Your task to perform on an android device: check the backup settings in the google photos Image 0: 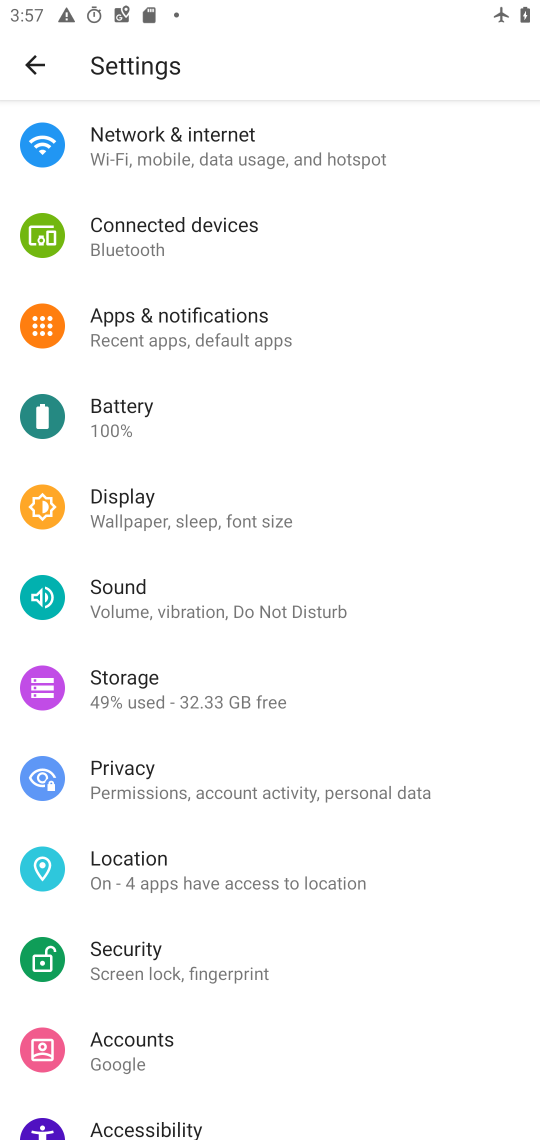
Step 0: press home button
Your task to perform on an android device: check the backup settings in the google photos Image 1: 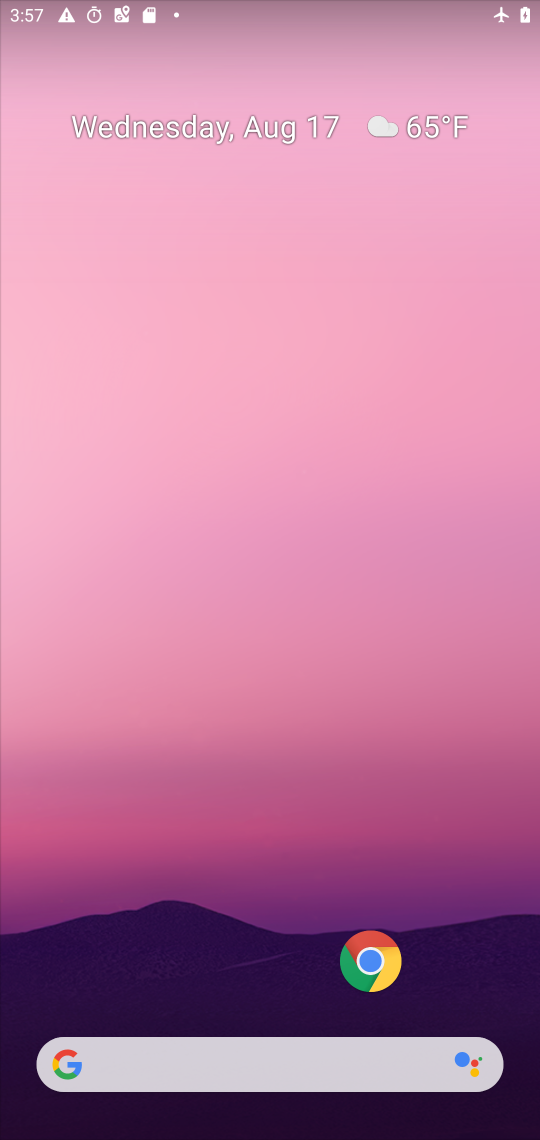
Step 1: drag from (446, 969) to (474, 385)
Your task to perform on an android device: check the backup settings in the google photos Image 2: 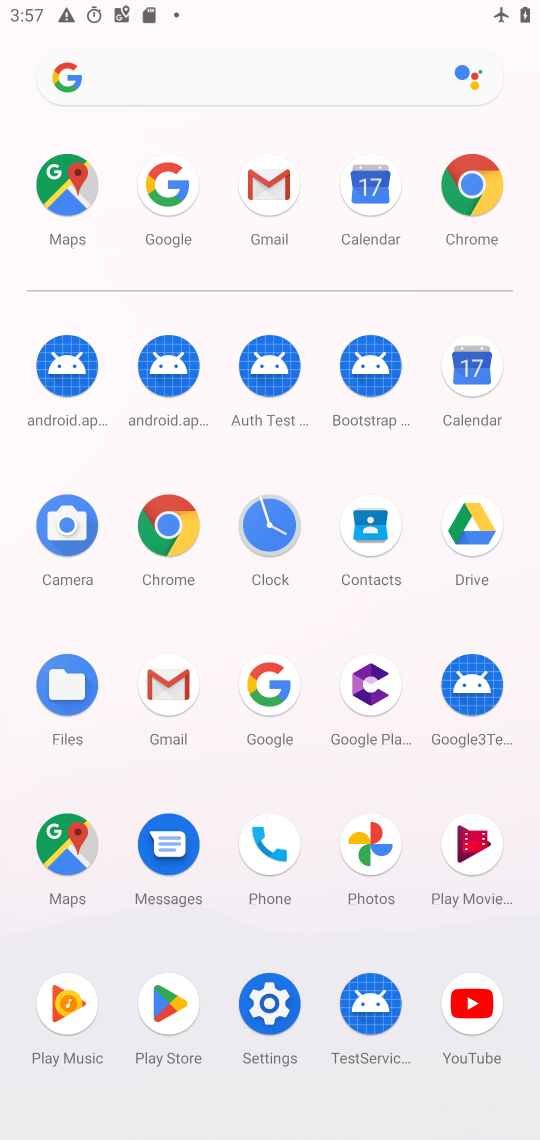
Step 2: click (393, 844)
Your task to perform on an android device: check the backup settings in the google photos Image 3: 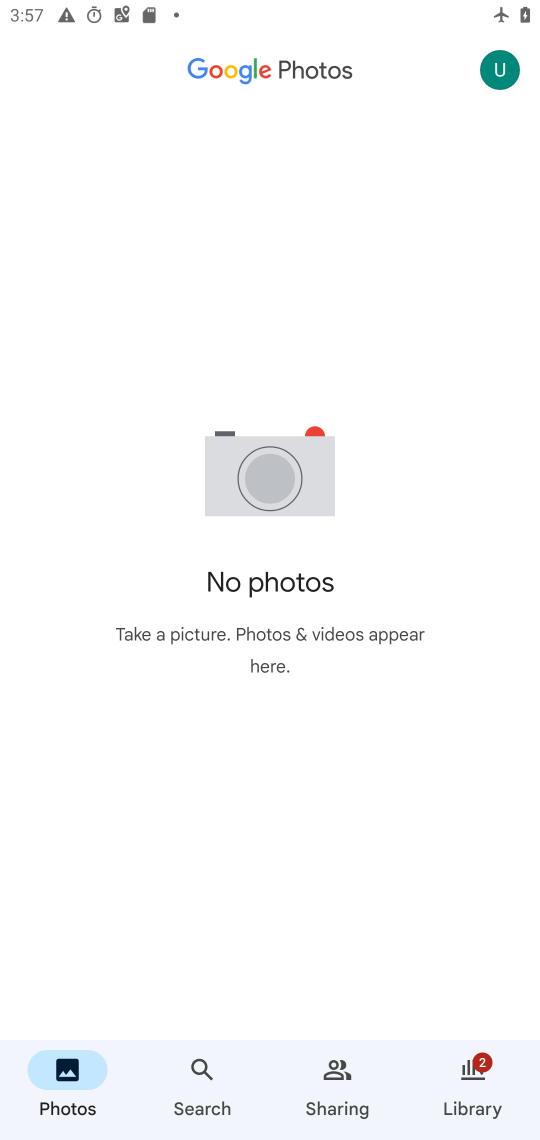
Step 3: click (491, 57)
Your task to perform on an android device: check the backup settings in the google photos Image 4: 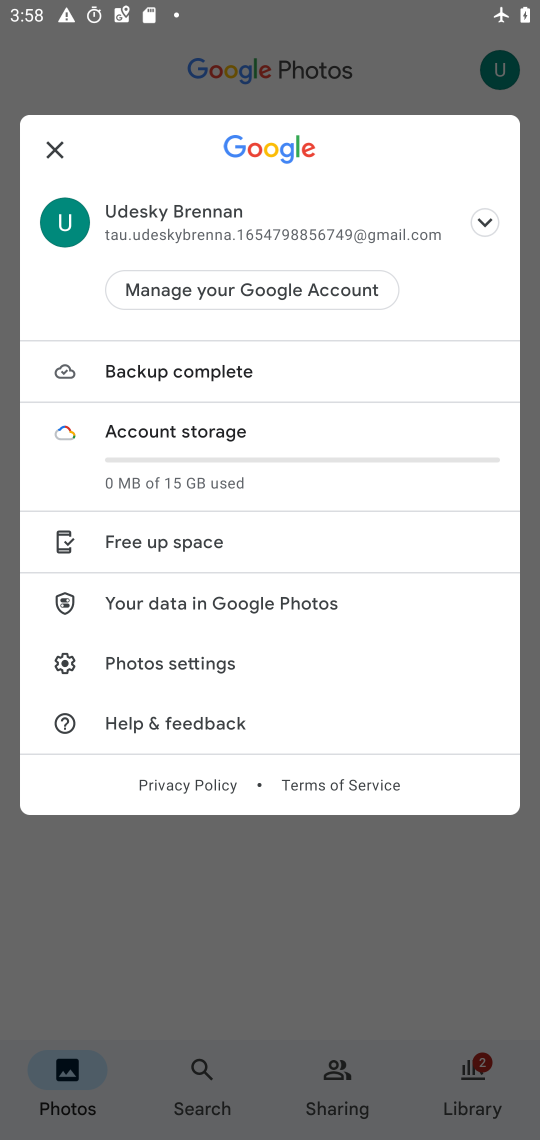
Step 4: click (209, 665)
Your task to perform on an android device: check the backup settings in the google photos Image 5: 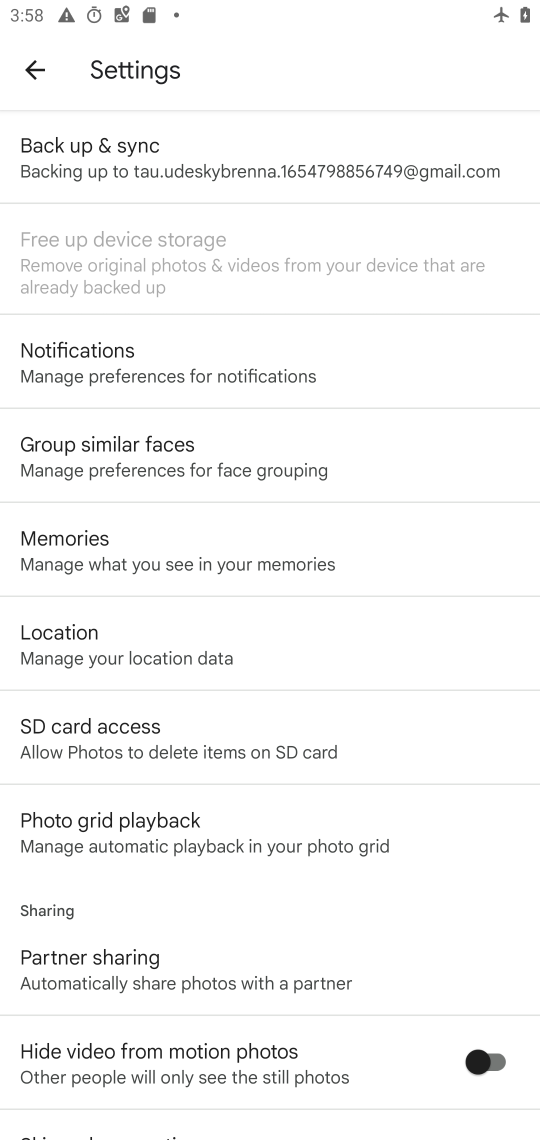
Step 5: click (295, 184)
Your task to perform on an android device: check the backup settings in the google photos Image 6: 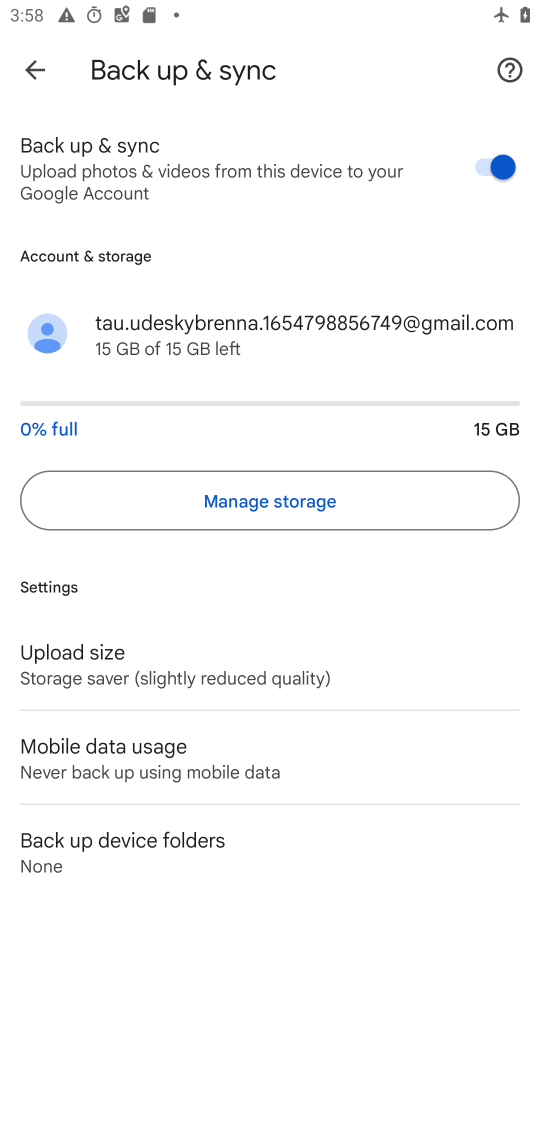
Step 6: task complete